Your task to perform on an android device: Open maps Image 0: 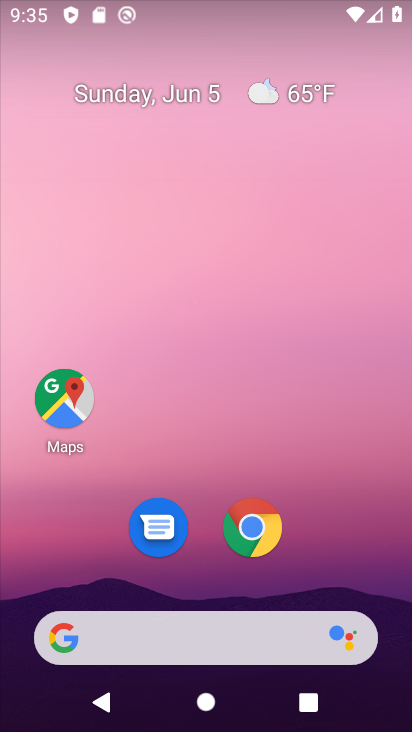
Step 0: drag from (192, 589) to (227, 39)
Your task to perform on an android device: Open maps Image 1: 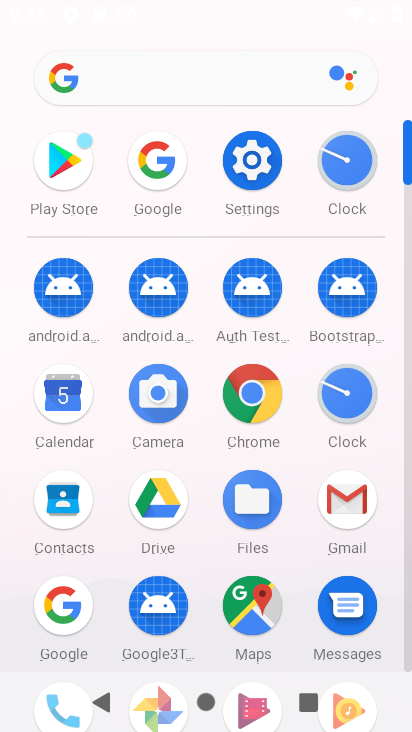
Step 1: drag from (169, 630) to (249, 149)
Your task to perform on an android device: Open maps Image 2: 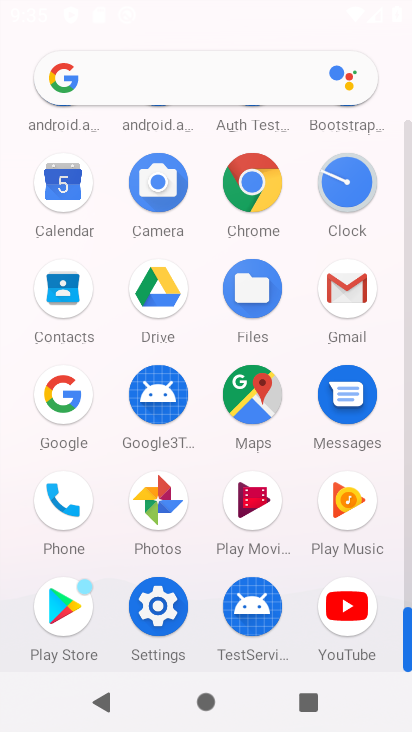
Step 2: click (247, 393)
Your task to perform on an android device: Open maps Image 3: 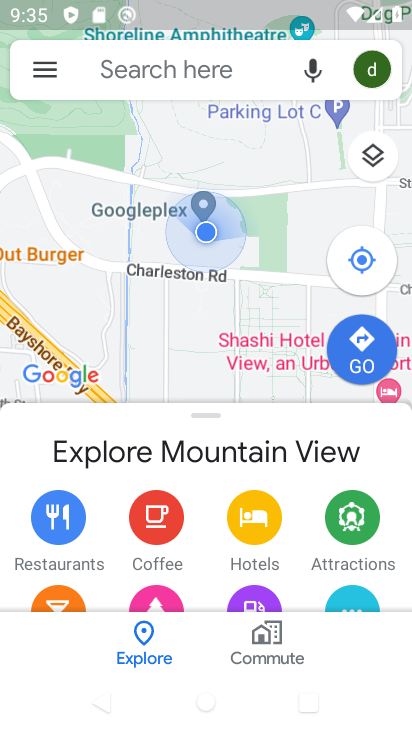
Step 3: task complete